Your task to perform on an android device: add a label to a message in the gmail app Image 0: 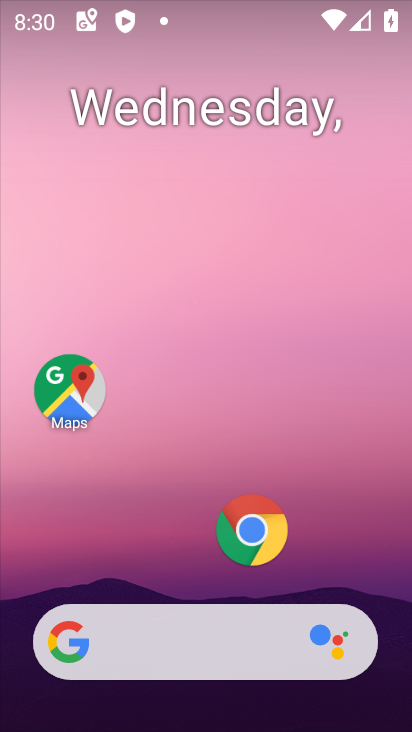
Step 0: drag from (160, 587) to (274, 109)
Your task to perform on an android device: add a label to a message in the gmail app Image 1: 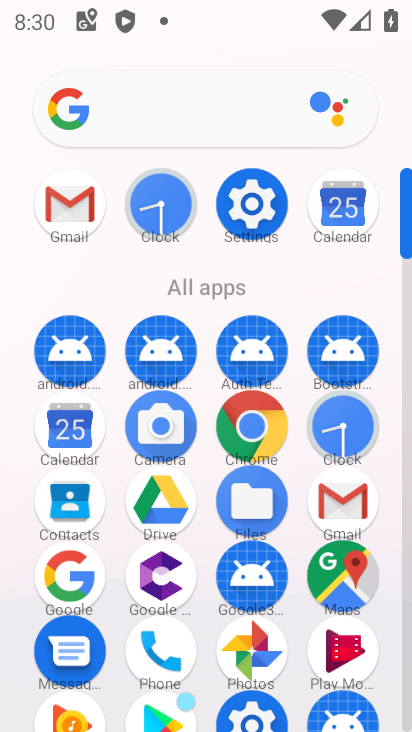
Step 1: click (62, 208)
Your task to perform on an android device: add a label to a message in the gmail app Image 2: 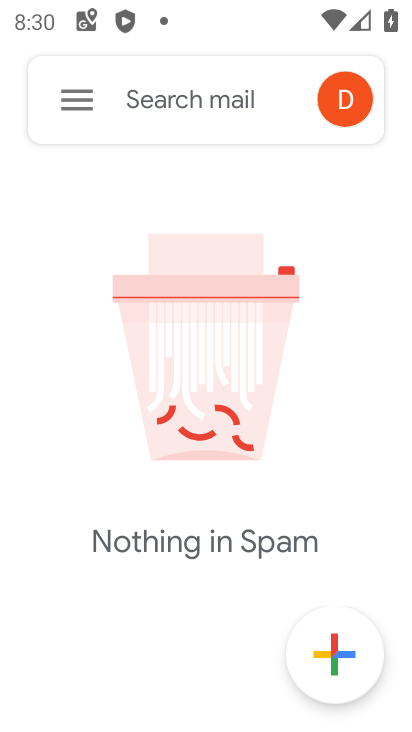
Step 2: click (84, 101)
Your task to perform on an android device: add a label to a message in the gmail app Image 3: 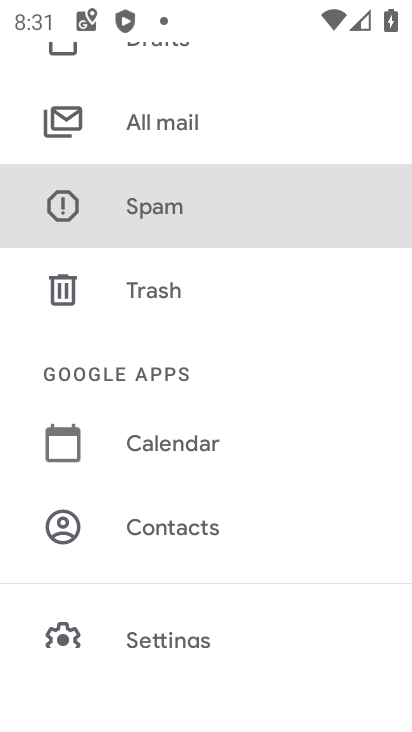
Step 3: click (152, 134)
Your task to perform on an android device: add a label to a message in the gmail app Image 4: 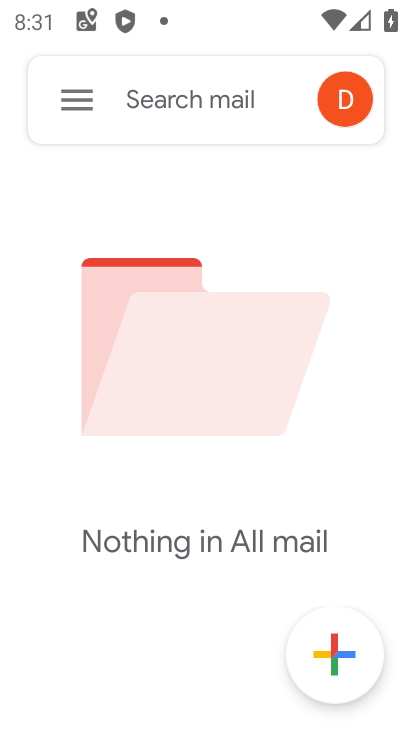
Step 4: task complete